Your task to perform on an android device: open the mobile data screen to see how much data has been used Image 0: 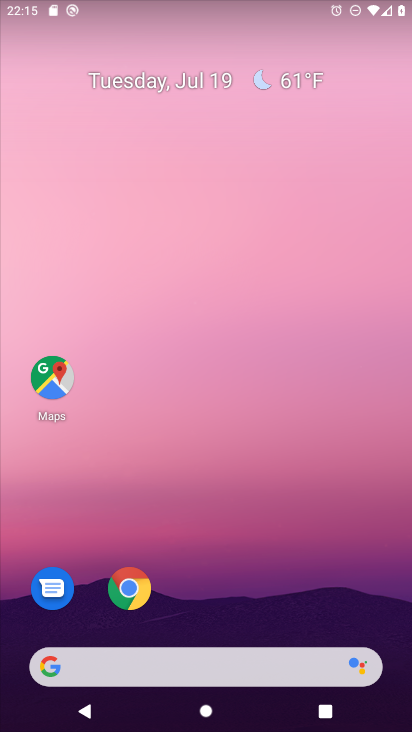
Step 0: drag from (217, 631) to (225, 40)
Your task to perform on an android device: open the mobile data screen to see how much data has been used Image 1: 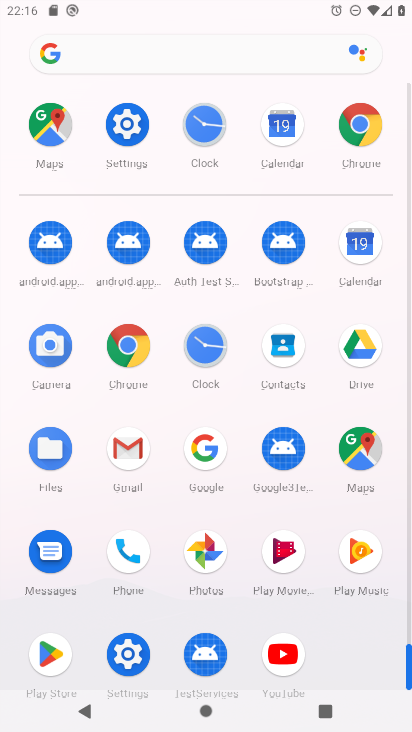
Step 1: click (127, 121)
Your task to perform on an android device: open the mobile data screen to see how much data has been used Image 2: 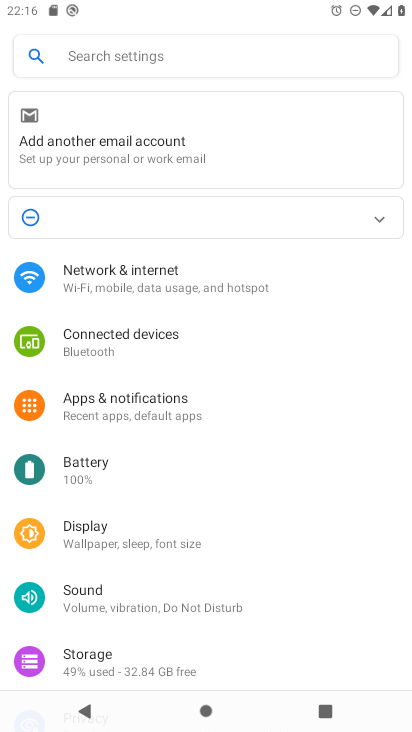
Step 2: click (159, 277)
Your task to perform on an android device: open the mobile data screen to see how much data has been used Image 3: 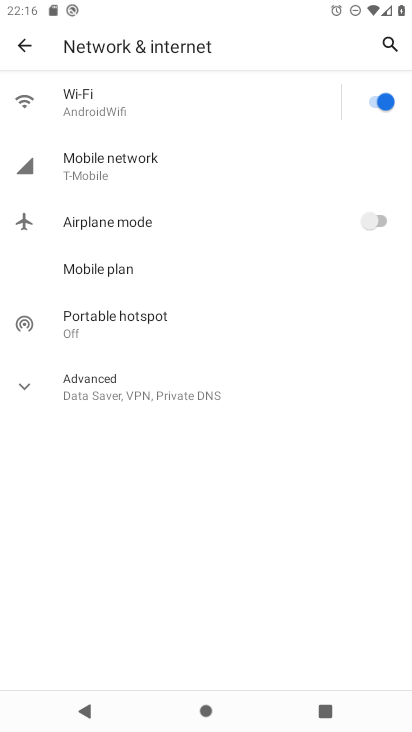
Step 3: click (141, 151)
Your task to perform on an android device: open the mobile data screen to see how much data has been used Image 4: 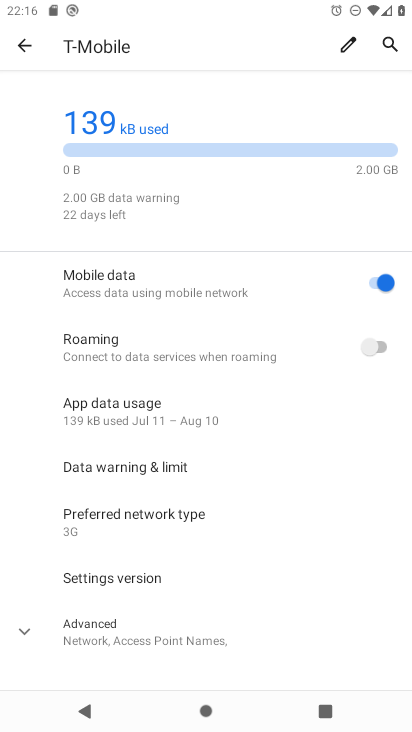
Step 4: click (169, 413)
Your task to perform on an android device: open the mobile data screen to see how much data has been used Image 5: 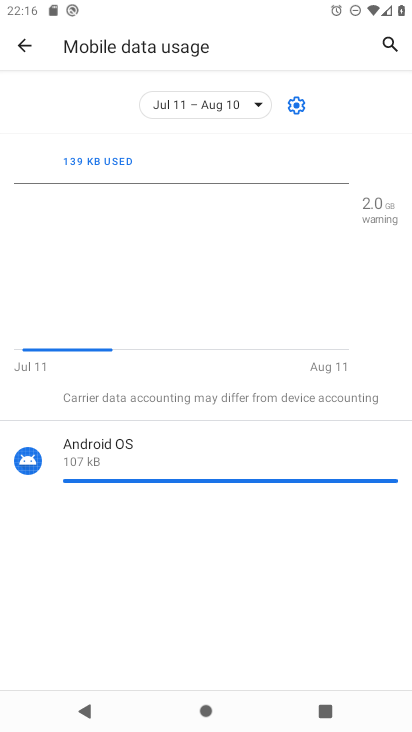
Step 5: task complete